Your task to perform on an android device: add a label to a message in the gmail app Image 0: 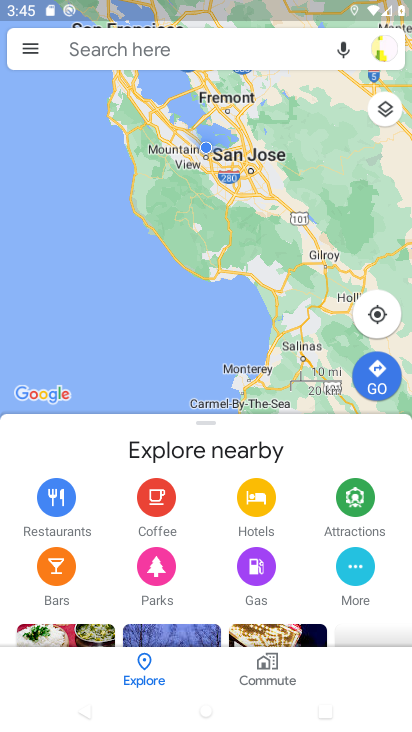
Step 0: press home button
Your task to perform on an android device: add a label to a message in the gmail app Image 1: 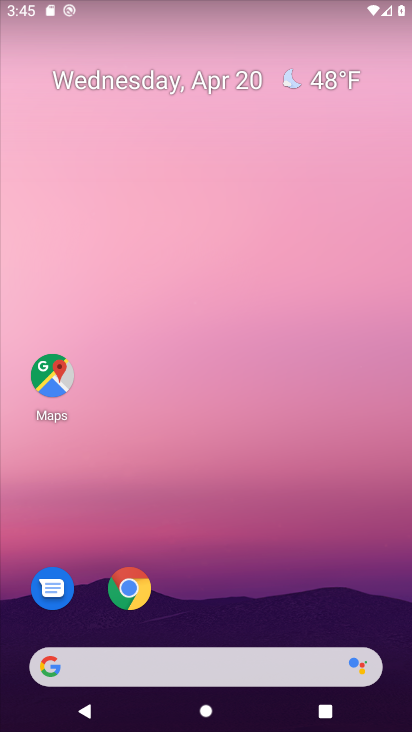
Step 1: drag from (313, 594) to (270, 188)
Your task to perform on an android device: add a label to a message in the gmail app Image 2: 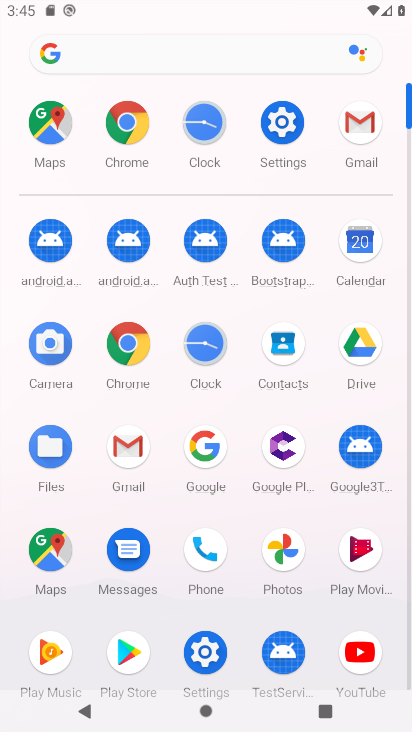
Step 2: click (118, 447)
Your task to perform on an android device: add a label to a message in the gmail app Image 3: 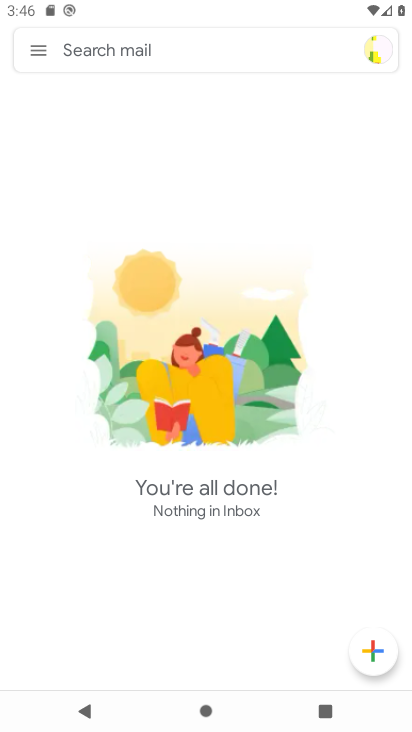
Step 3: task complete